Your task to perform on an android device: toggle wifi Image 0: 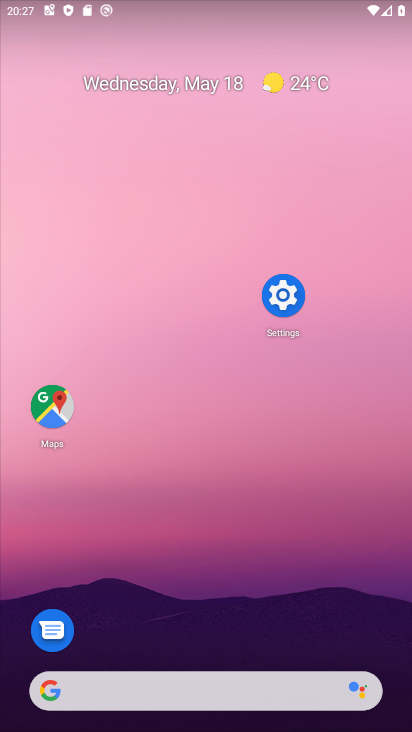
Step 0: drag from (183, 664) to (204, 373)
Your task to perform on an android device: toggle wifi Image 1: 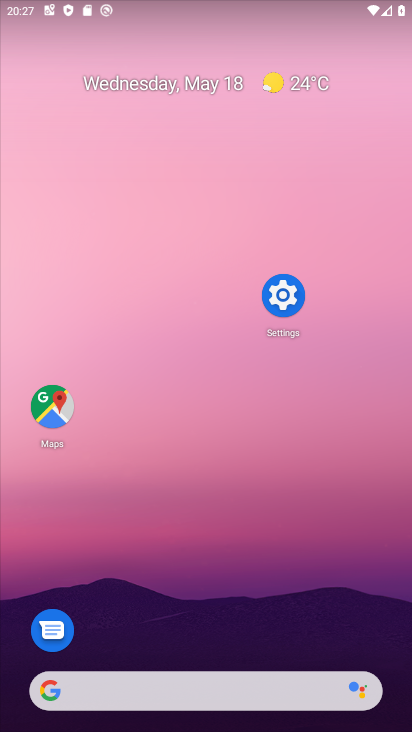
Step 1: drag from (241, 580) to (268, 306)
Your task to perform on an android device: toggle wifi Image 2: 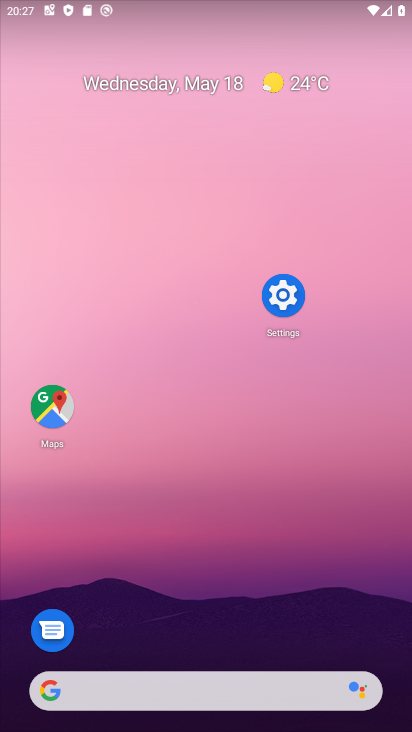
Step 2: drag from (214, 666) to (219, 337)
Your task to perform on an android device: toggle wifi Image 3: 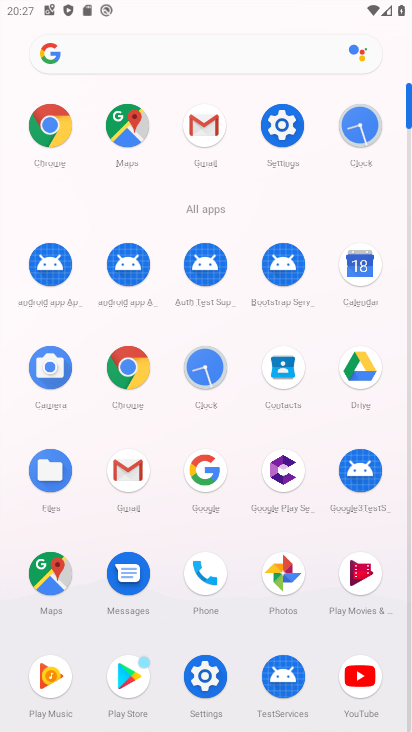
Step 3: click (280, 130)
Your task to perform on an android device: toggle wifi Image 4: 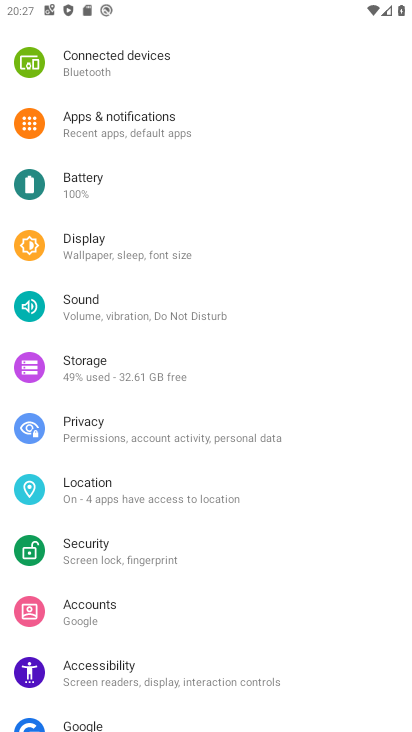
Step 4: drag from (178, 292) to (189, 370)
Your task to perform on an android device: toggle wifi Image 5: 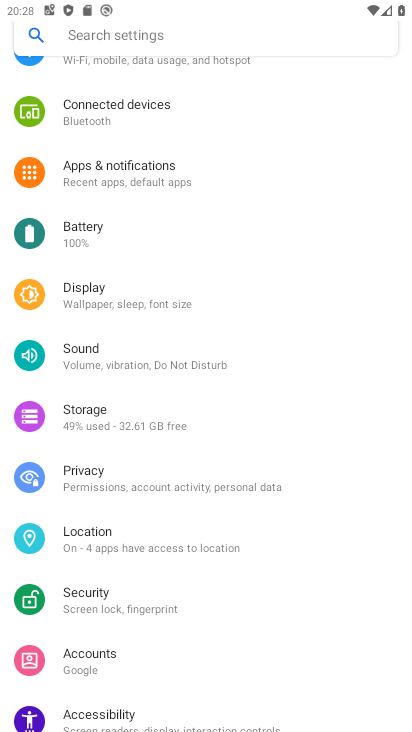
Step 5: click (177, 60)
Your task to perform on an android device: toggle wifi Image 6: 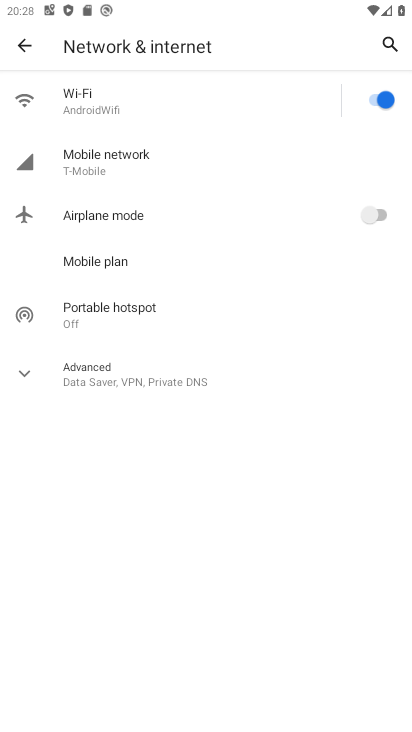
Step 6: click (374, 98)
Your task to perform on an android device: toggle wifi Image 7: 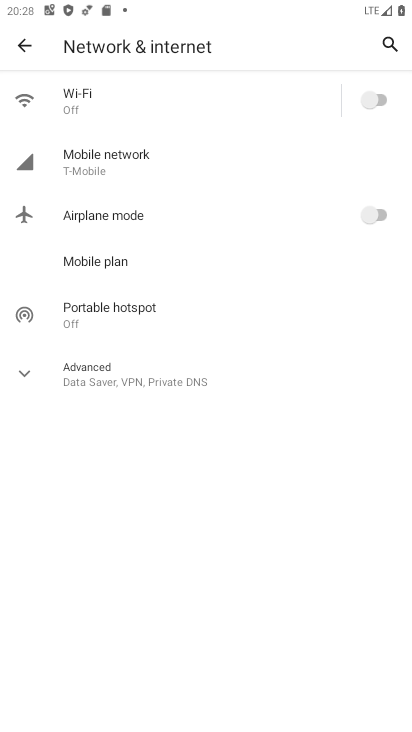
Step 7: task complete